Your task to perform on an android device: What is the news today? Image 0: 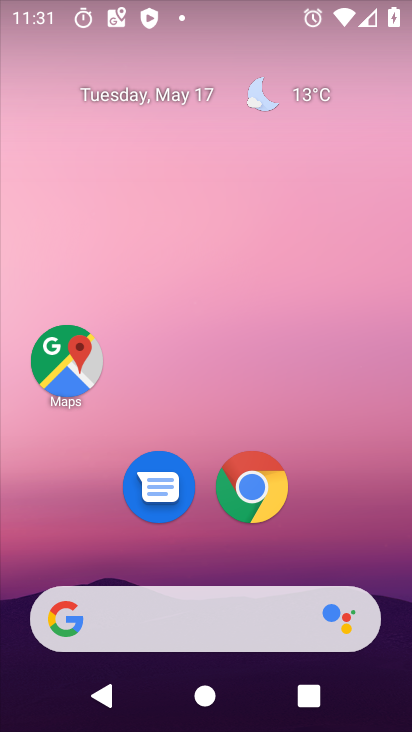
Step 0: drag from (0, 249) to (106, 10)
Your task to perform on an android device: What is the news today? Image 1: 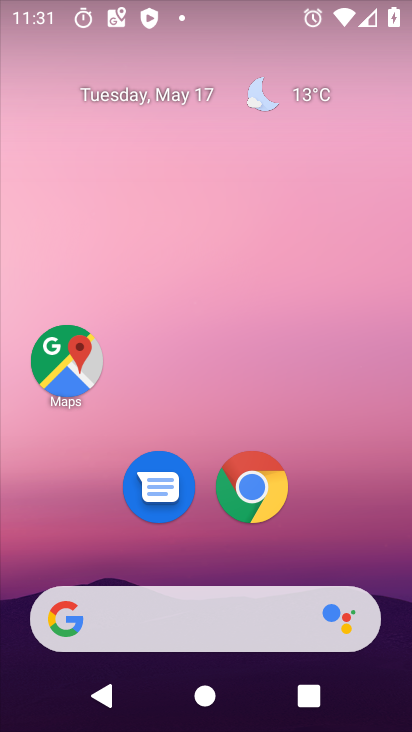
Step 1: task complete